Your task to perform on an android device: set the stopwatch Image 0: 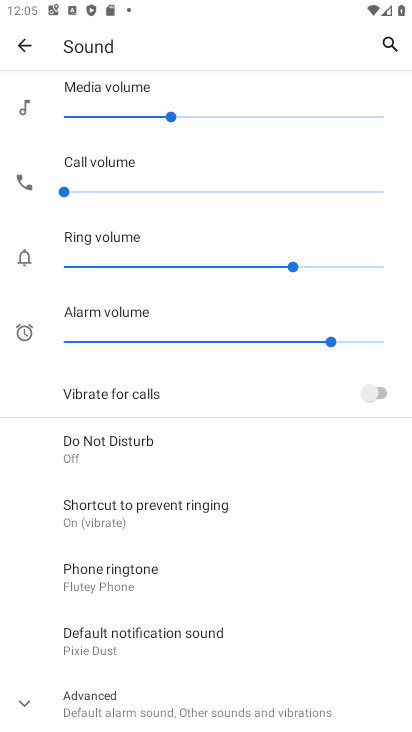
Step 0: press home button
Your task to perform on an android device: set the stopwatch Image 1: 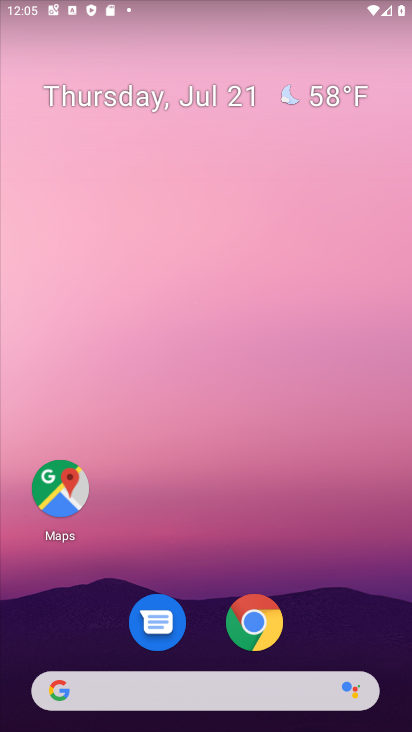
Step 1: drag from (29, 671) to (208, 281)
Your task to perform on an android device: set the stopwatch Image 2: 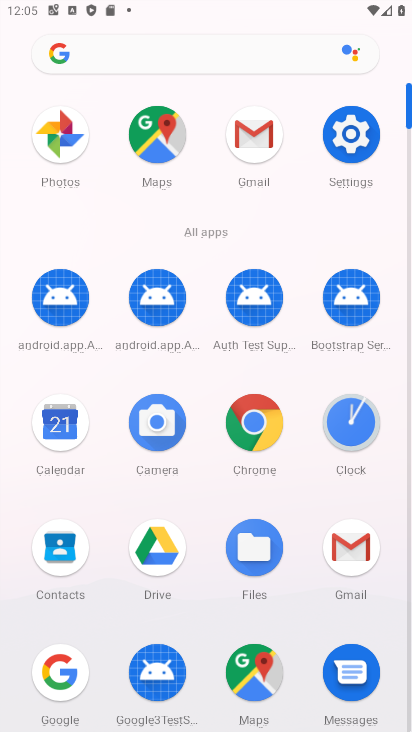
Step 2: click (349, 442)
Your task to perform on an android device: set the stopwatch Image 3: 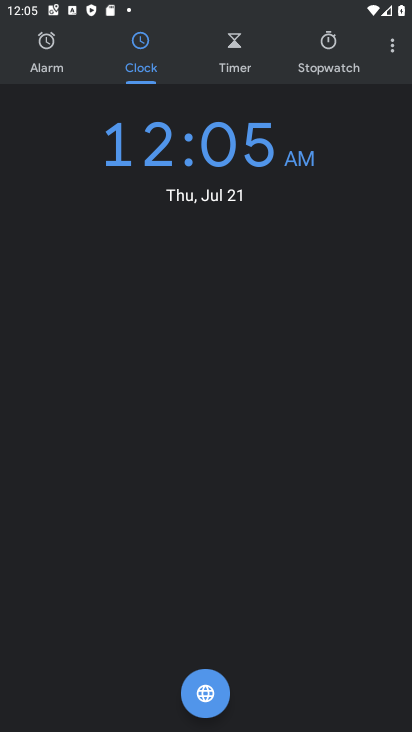
Step 3: click (335, 56)
Your task to perform on an android device: set the stopwatch Image 4: 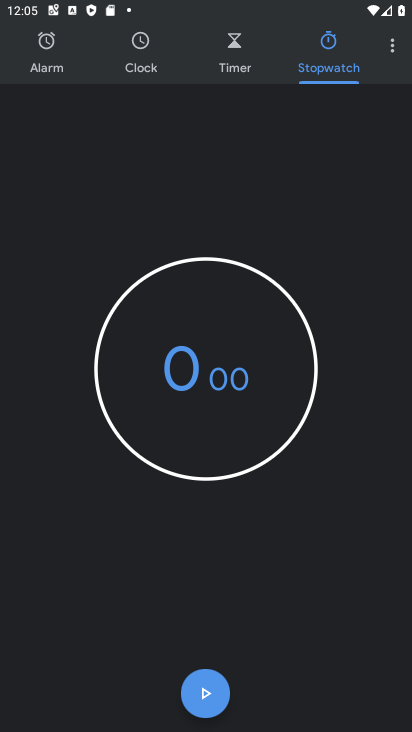
Step 4: click (218, 382)
Your task to perform on an android device: set the stopwatch Image 5: 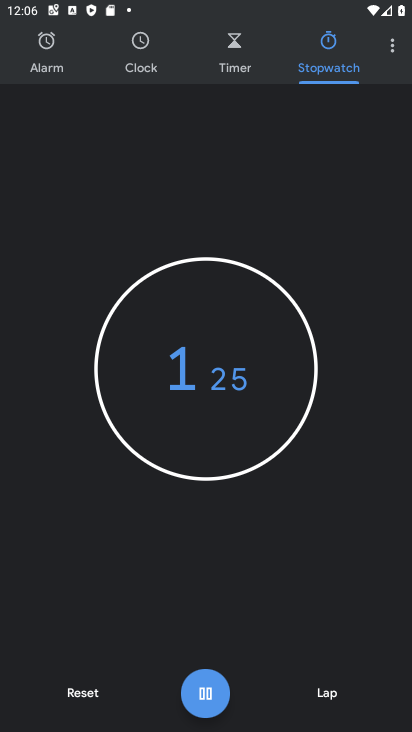
Step 5: click (194, 386)
Your task to perform on an android device: set the stopwatch Image 6: 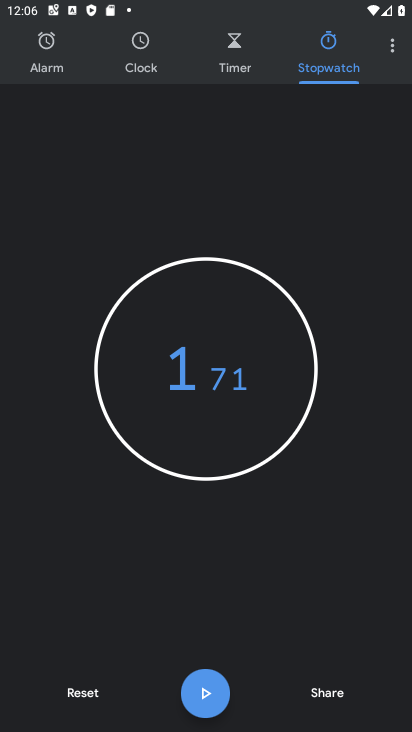
Step 6: task complete